Your task to perform on an android device: What's the US dollar exchange rateagainst the Swiss Franc? Image 0: 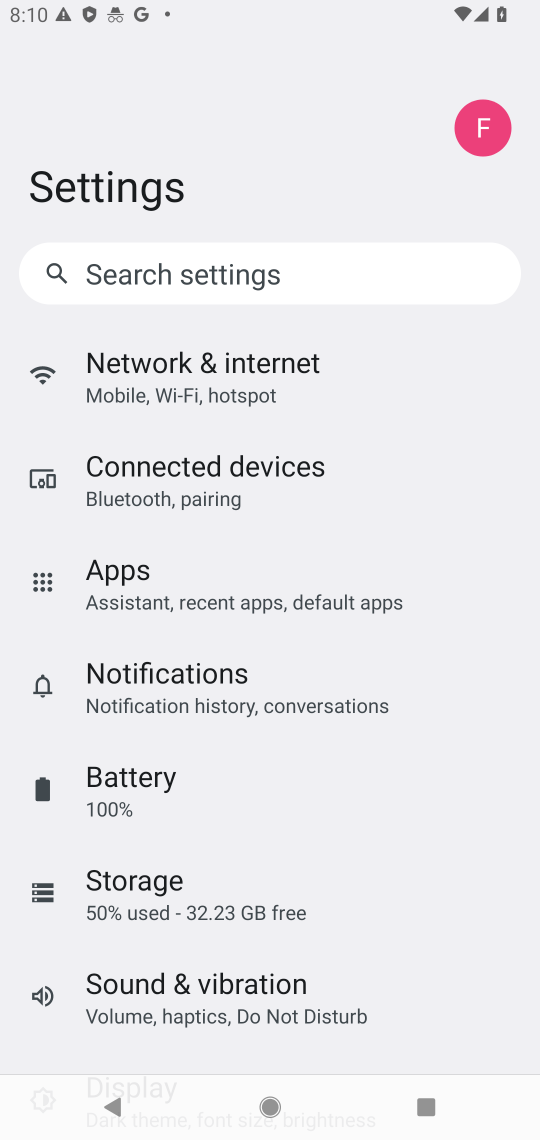
Step 0: press home button
Your task to perform on an android device: What's the US dollar exchange rateagainst the Swiss Franc? Image 1: 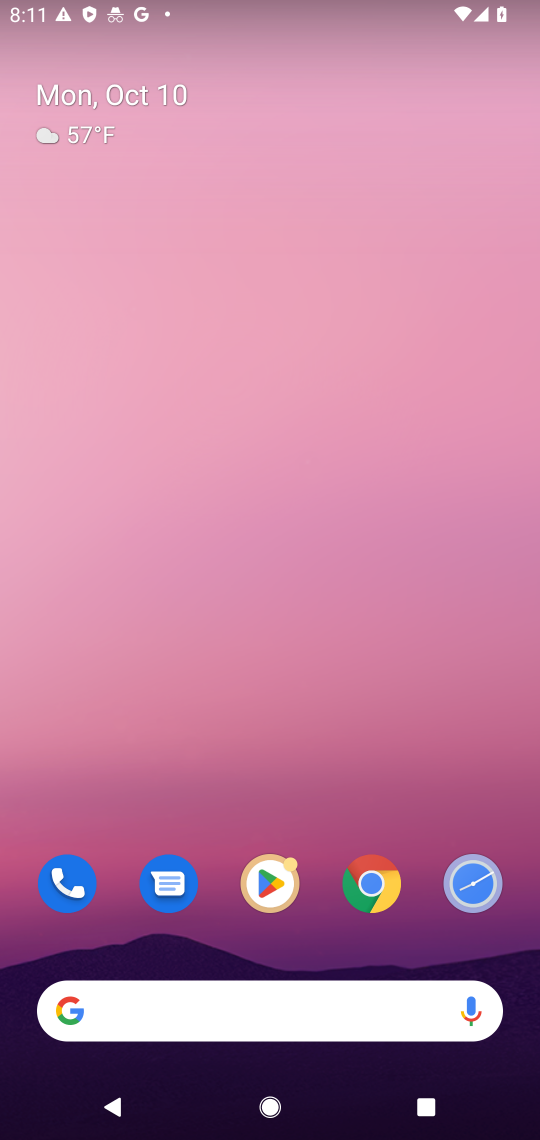
Step 1: drag from (359, 954) to (351, 357)
Your task to perform on an android device: What's the US dollar exchange rateagainst the Swiss Franc? Image 2: 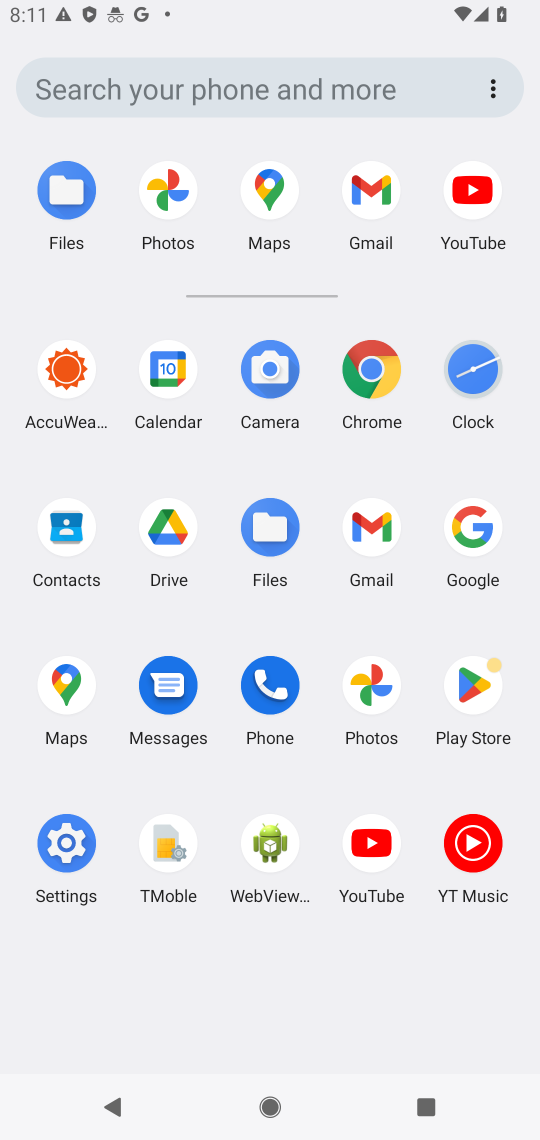
Step 2: click (461, 540)
Your task to perform on an android device: What's the US dollar exchange rateagainst the Swiss Franc? Image 3: 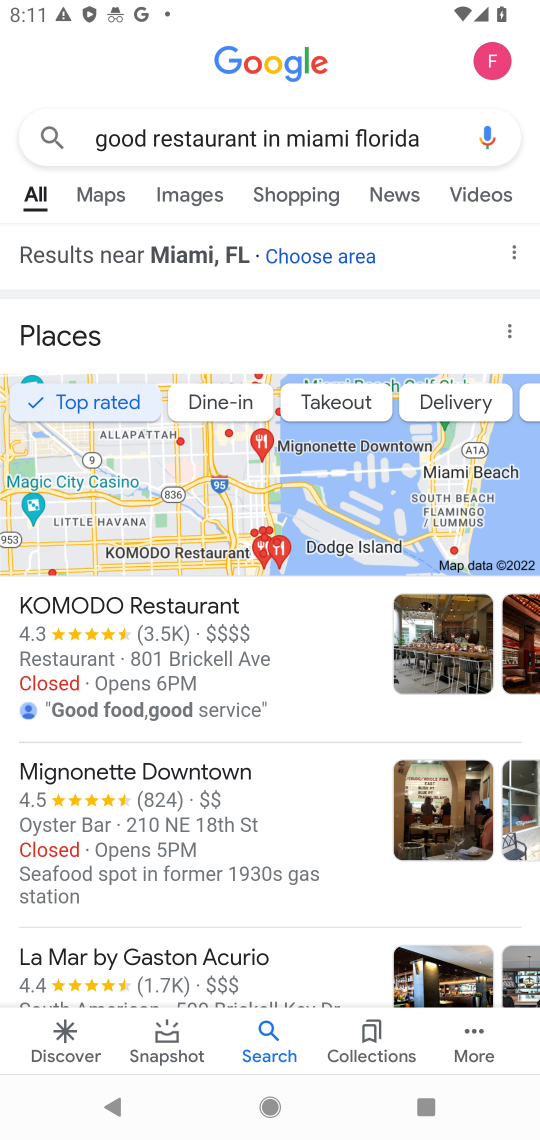
Step 3: click (428, 146)
Your task to perform on an android device: What's the US dollar exchange rateagainst the Swiss Franc? Image 4: 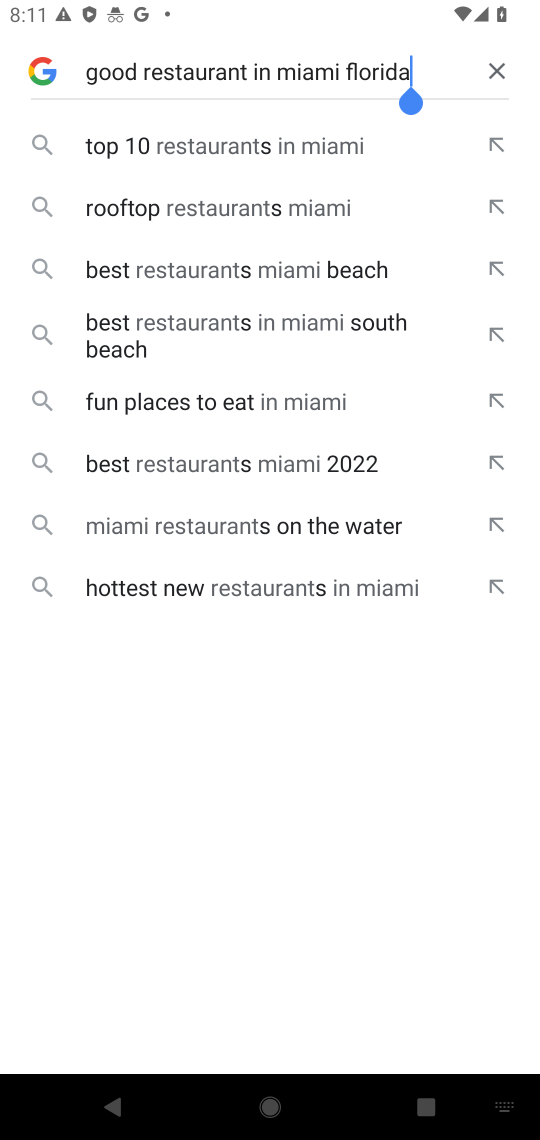
Step 4: click (491, 62)
Your task to perform on an android device: What's the US dollar exchange rateagainst the Swiss Franc? Image 5: 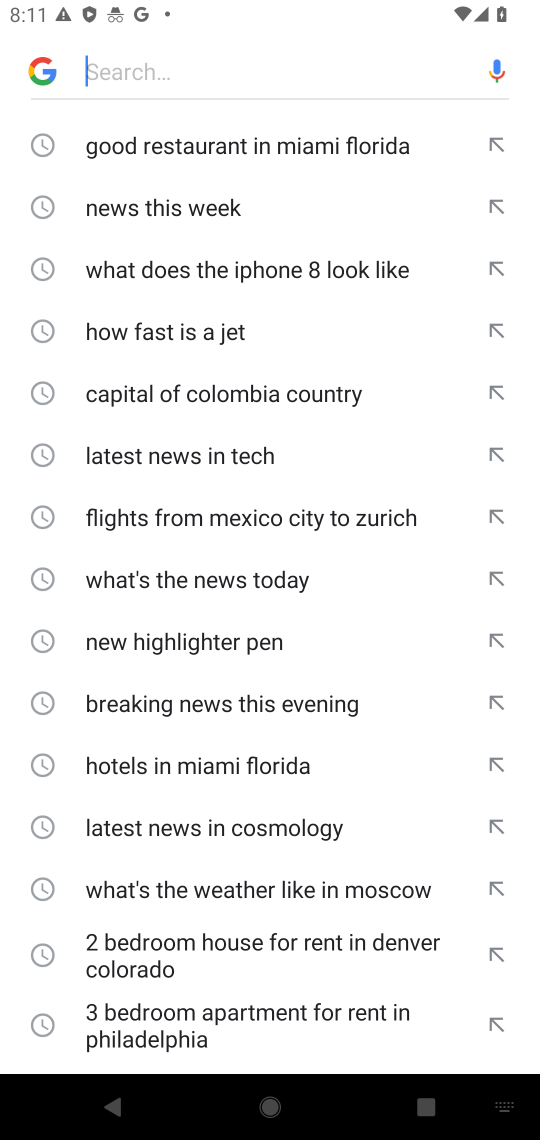
Step 5: type "What's the US dollar exchange rateagainst the Swiss Franc?"
Your task to perform on an android device: What's the US dollar exchange rateagainst the Swiss Franc? Image 6: 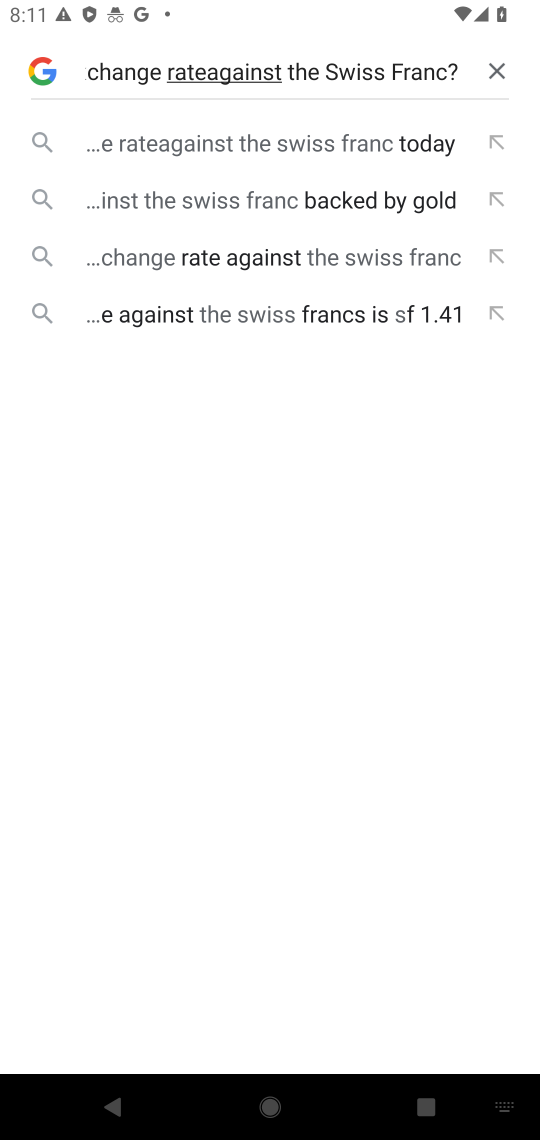
Step 6: click (406, 132)
Your task to perform on an android device: What's the US dollar exchange rateagainst the Swiss Franc? Image 7: 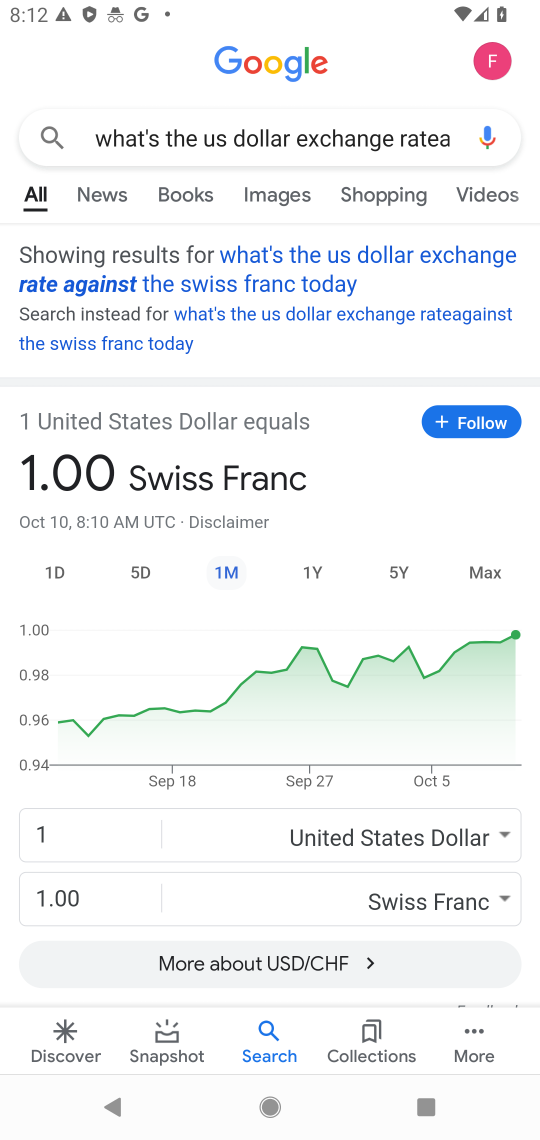
Step 7: task complete